Your task to perform on an android device: check google app version Image 0: 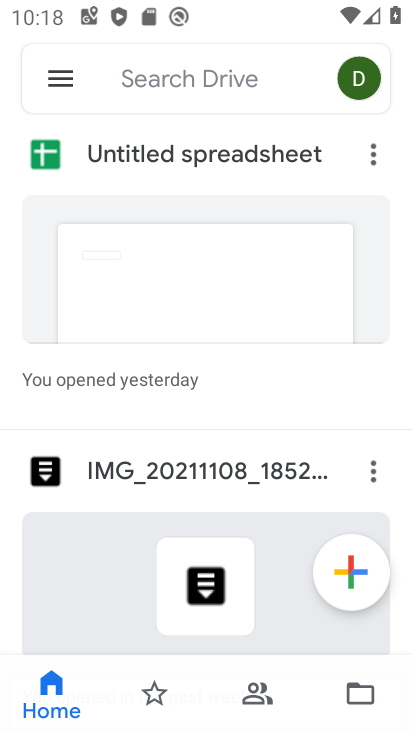
Step 0: press home button
Your task to perform on an android device: check google app version Image 1: 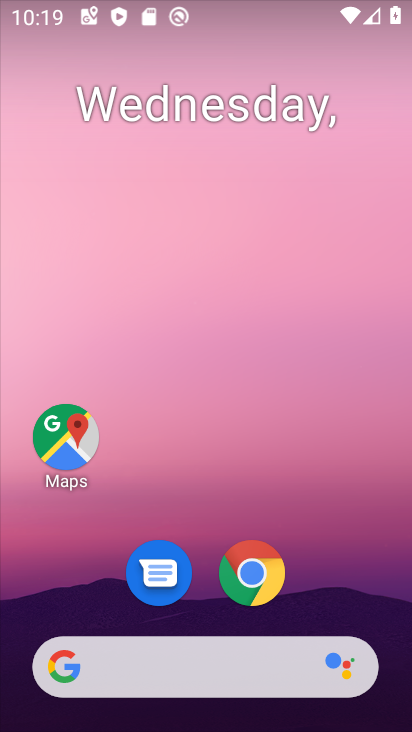
Step 1: drag from (393, 533) to (380, 63)
Your task to perform on an android device: check google app version Image 2: 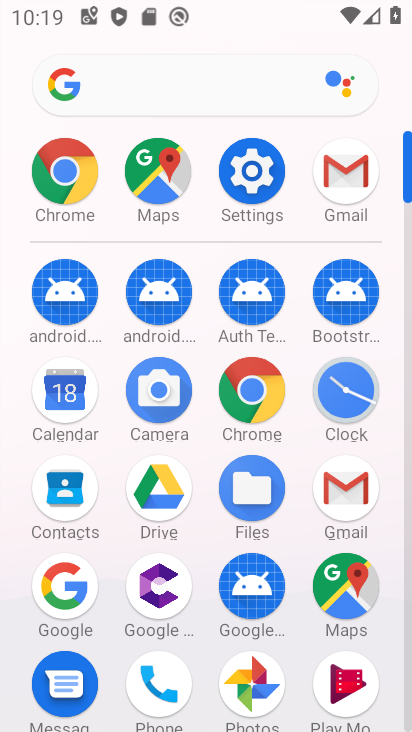
Step 2: click (71, 582)
Your task to perform on an android device: check google app version Image 3: 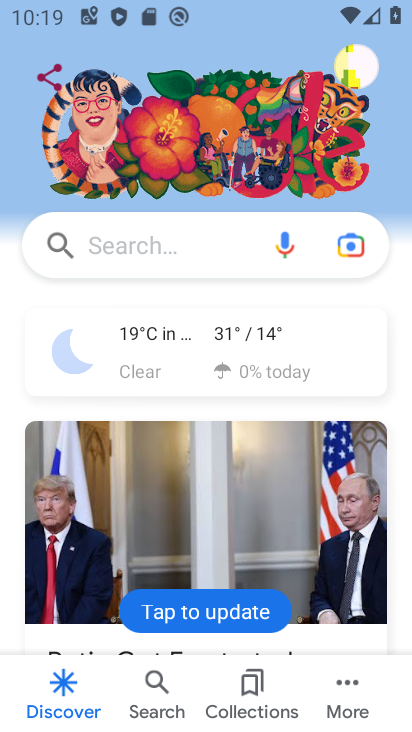
Step 3: click (351, 698)
Your task to perform on an android device: check google app version Image 4: 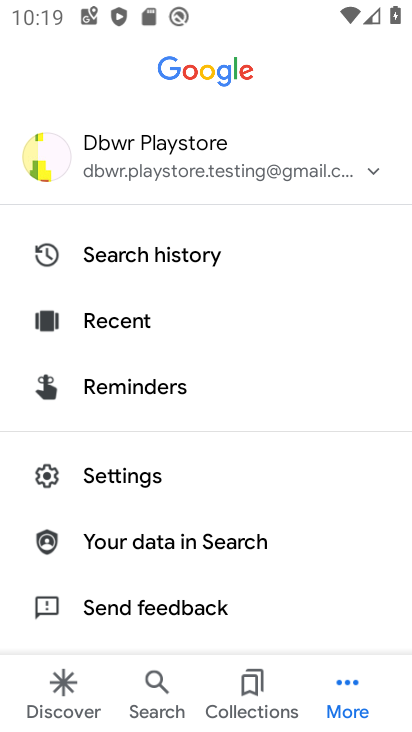
Step 4: click (154, 476)
Your task to perform on an android device: check google app version Image 5: 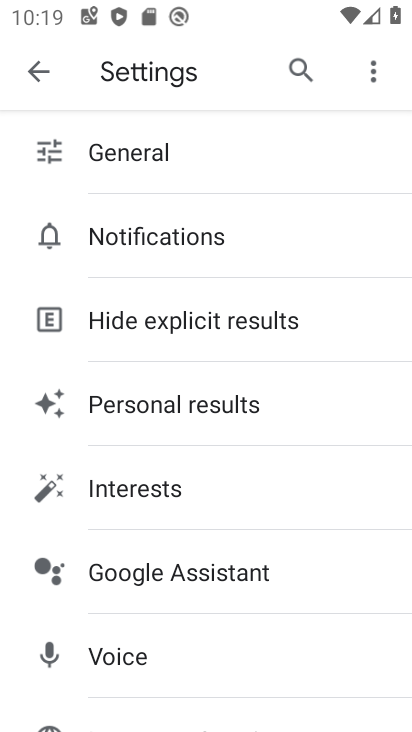
Step 5: drag from (321, 599) to (337, 364)
Your task to perform on an android device: check google app version Image 6: 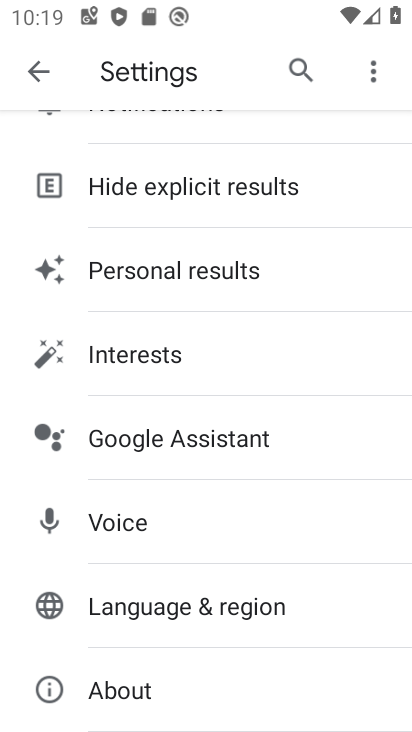
Step 6: click (150, 698)
Your task to perform on an android device: check google app version Image 7: 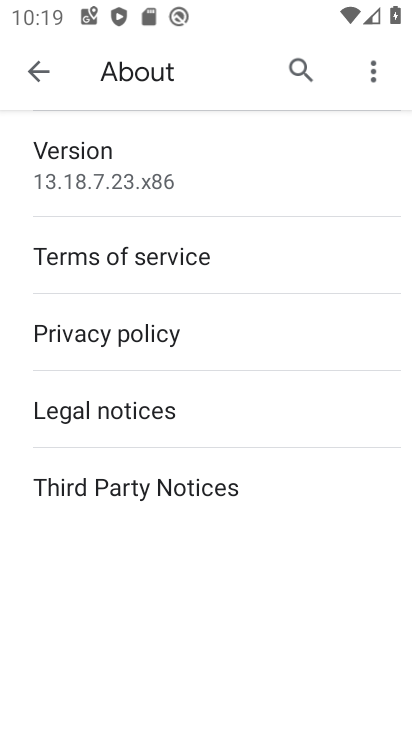
Step 7: task complete